Your task to perform on an android device: turn on data saver in the chrome app Image 0: 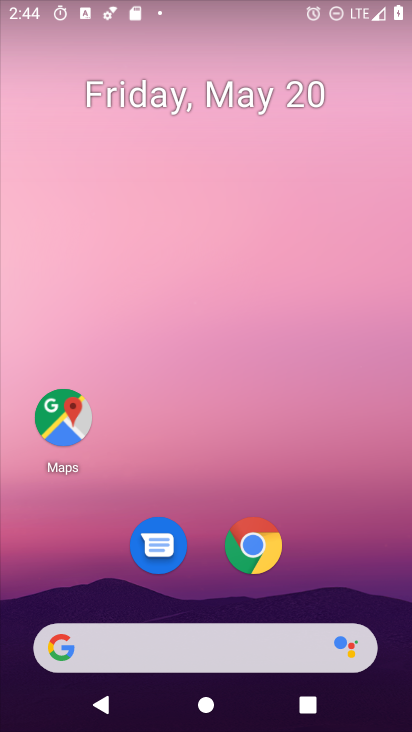
Step 0: drag from (317, 633) to (271, 9)
Your task to perform on an android device: turn on data saver in the chrome app Image 1: 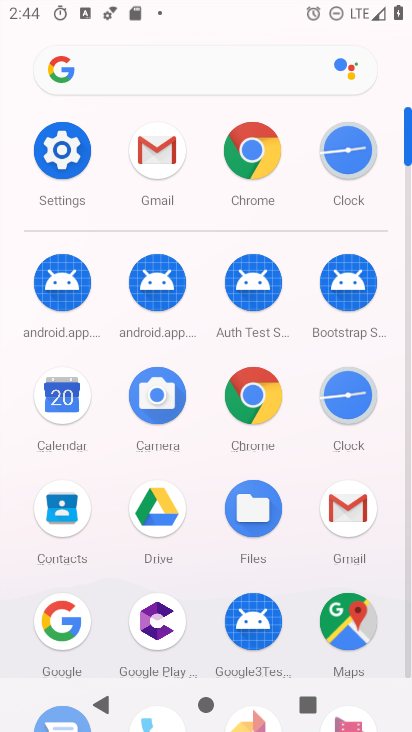
Step 1: click (245, 403)
Your task to perform on an android device: turn on data saver in the chrome app Image 2: 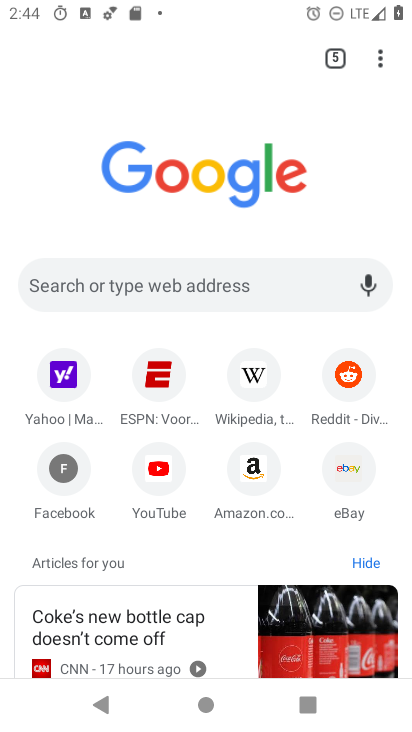
Step 2: drag from (377, 59) to (195, 485)
Your task to perform on an android device: turn on data saver in the chrome app Image 3: 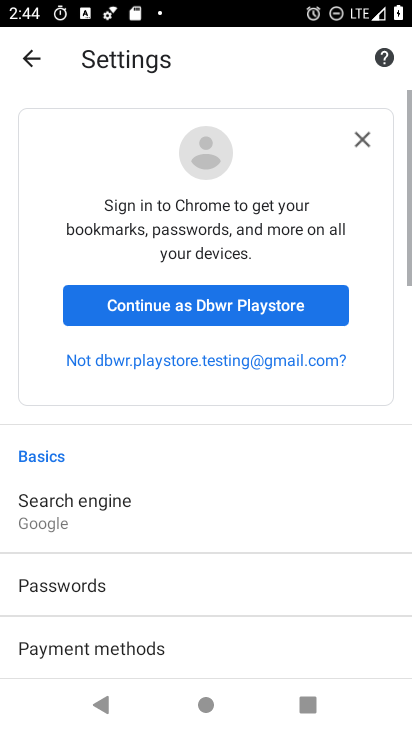
Step 3: drag from (183, 584) to (206, 24)
Your task to perform on an android device: turn on data saver in the chrome app Image 4: 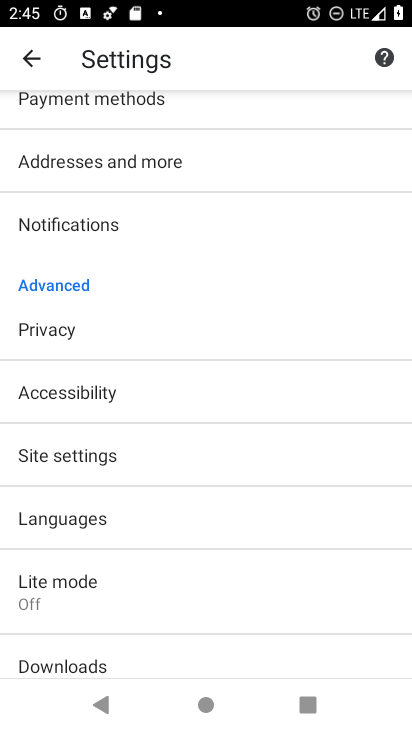
Step 4: click (79, 579)
Your task to perform on an android device: turn on data saver in the chrome app Image 5: 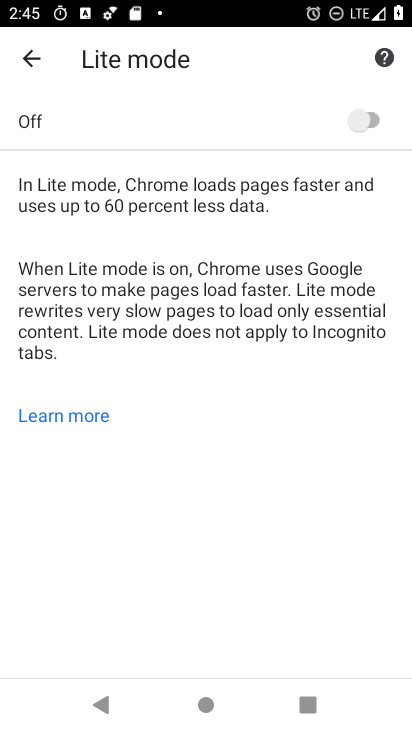
Step 5: click (367, 120)
Your task to perform on an android device: turn on data saver in the chrome app Image 6: 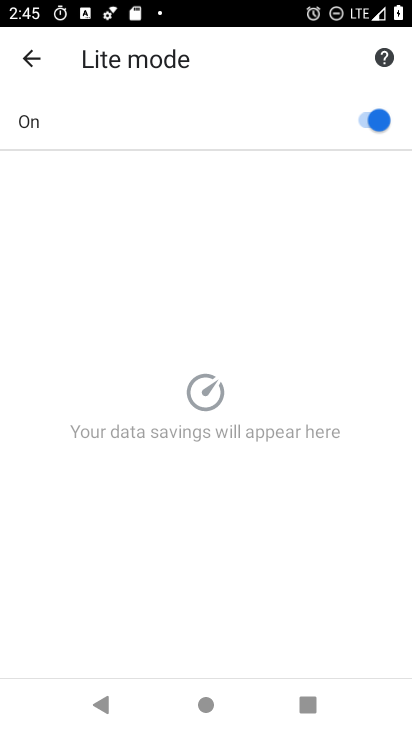
Step 6: task complete